Your task to perform on an android device: What's on my calendar today? Image 0: 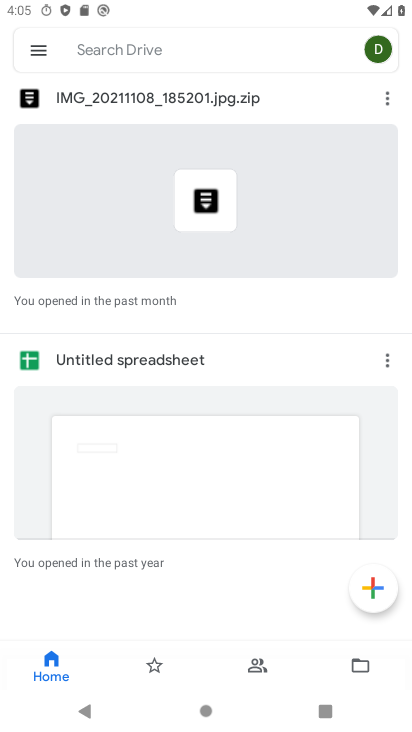
Step 0: press home button
Your task to perform on an android device: What's on my calendar today? Image 1: 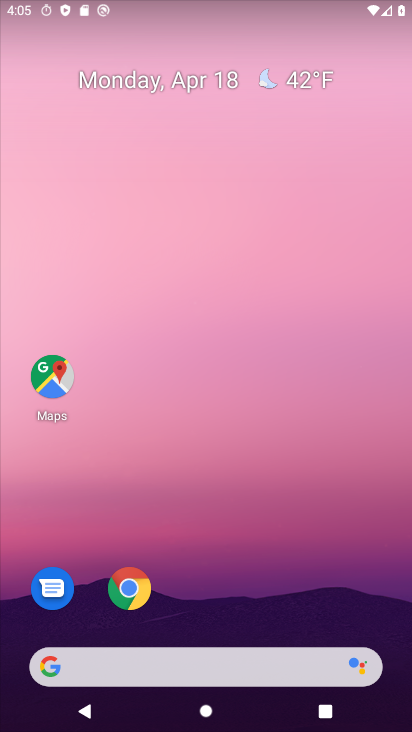
Step 1: click (171, 88)
Your task to perform on an android device: What's on my calendar today? Image 2: 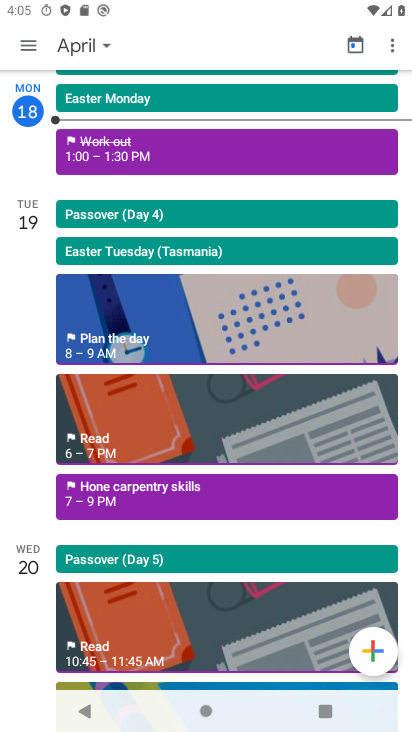
Step 2: task complete